Your task to perform on an android device: Go to Android settings Image 0: 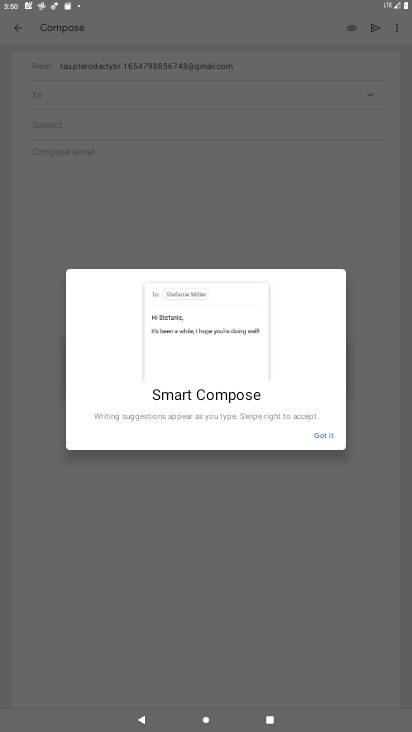
Step 0: press home button
Your task to perform on an android device: Go to Android settings Image 1: 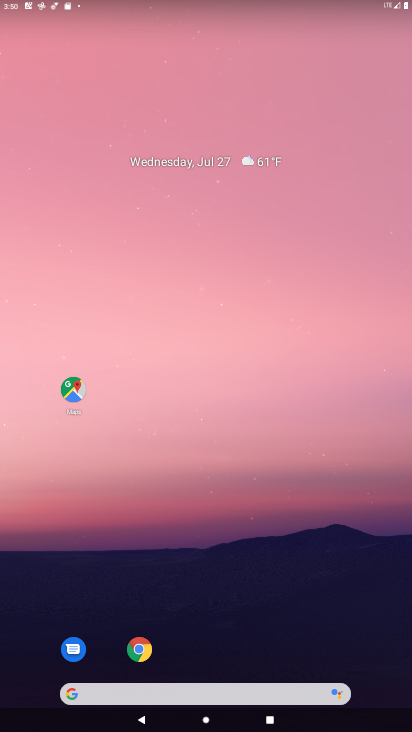
Step 1: drag from (169, 639) to (162, 139)
Your task to perform on an android device: Go to Android settings Image 2: 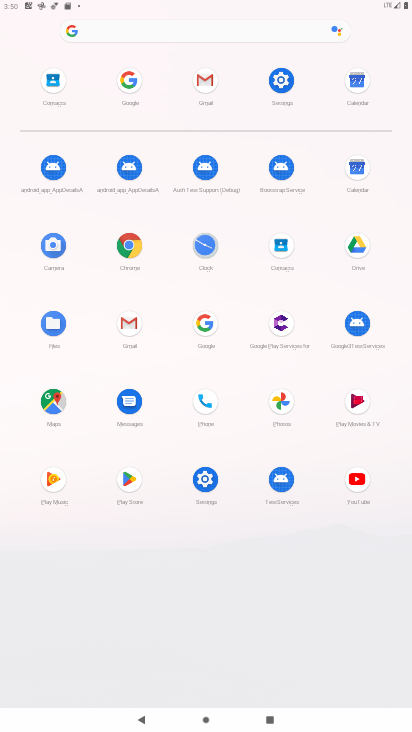
Step 2: click (214, 488)
Your task to perform on an android device: Go to Android settings Image 3: 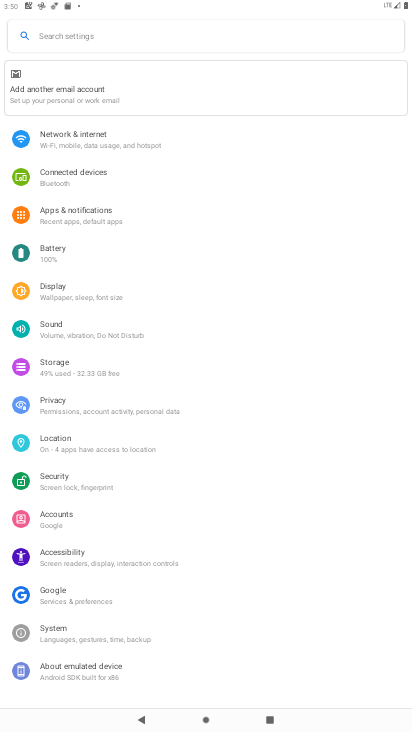
Step 3: click (54, 665)
Your task to perform on an android device: Go to Android settings Image 4: 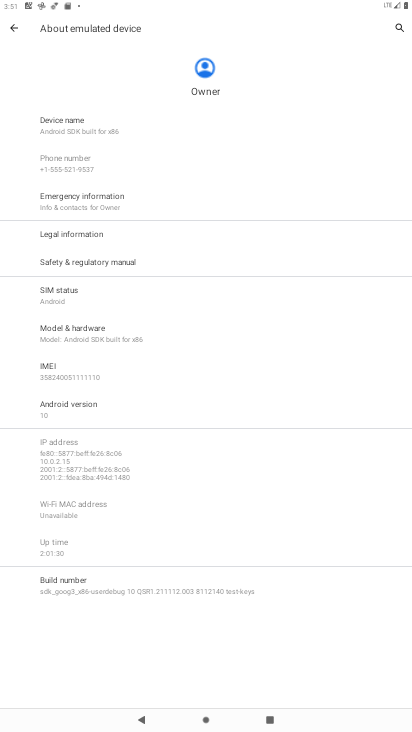
Step 4: click (46, 419)
Your task to perform on an android device: Go to Android settings Image 5: 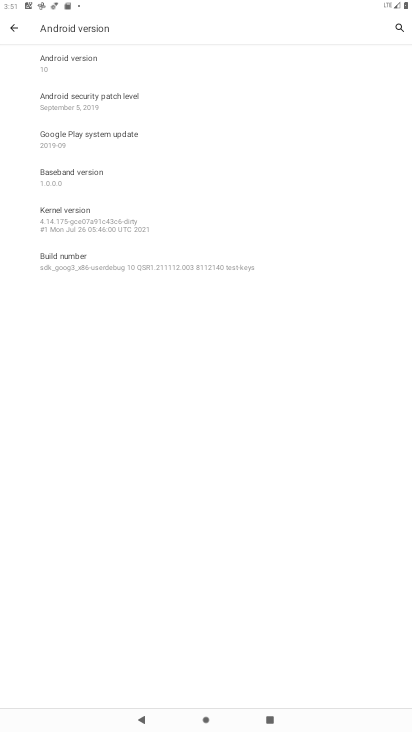
Step 5: task complete